Your task to perform on an android device: Go to Google Image 0: 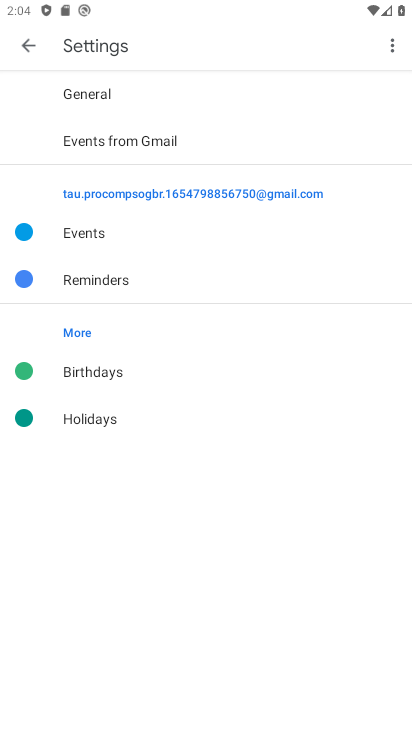
Step 0: press home button
Your task to perform on an android device: Go to Google Image 1: 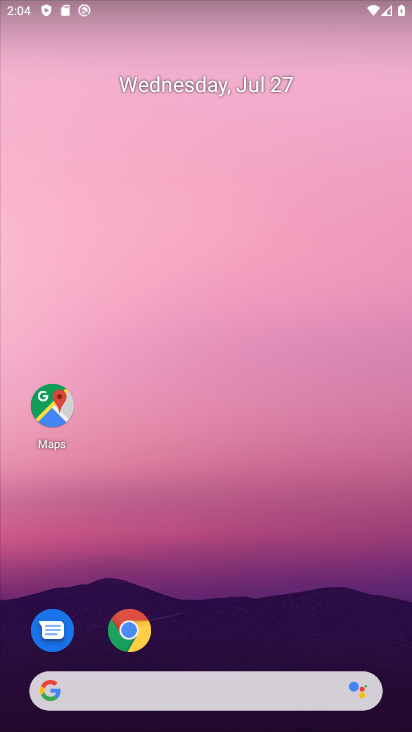
Step 1: drag from (249, 594) to (139, 17)
Your task to perform on an android device: Go to Google Image 2: 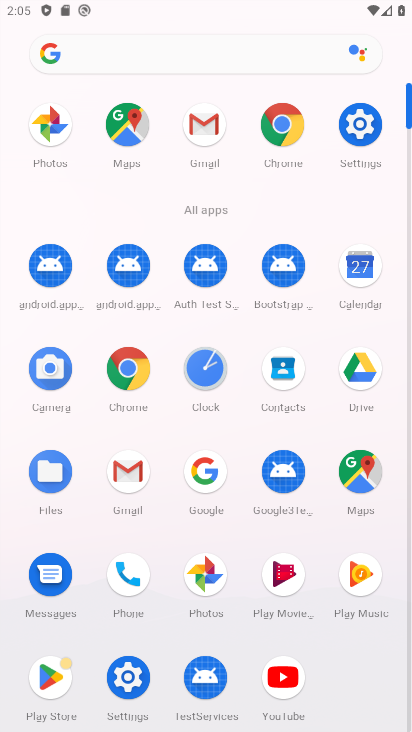
Step 2: click (210, 467)
Your task to perform on an android device: Go to Google Image 3: 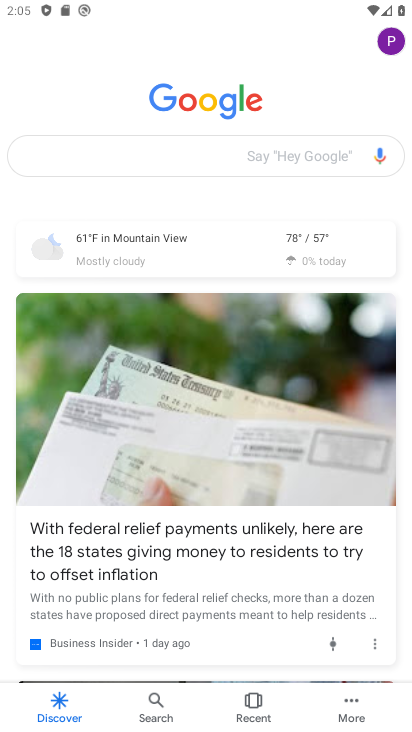
Step 3: task complete